Your task to perform on an android device: Search for Mexican restaurants on Maps Image 0: 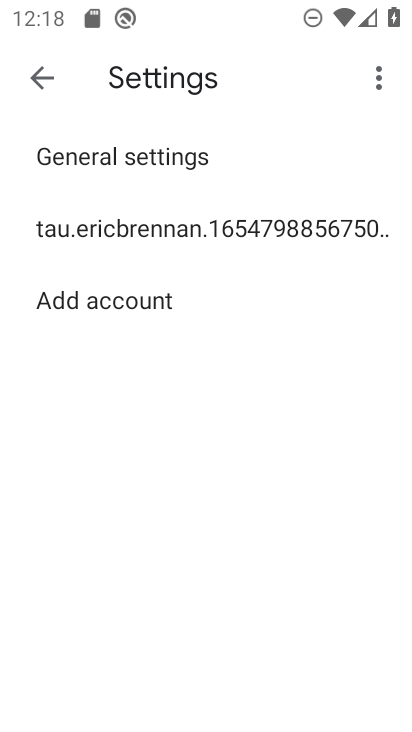
Step 0: click (43, 79)
Your task to perform on an android device: Search for Mexican restaurants on Maps Image 1: 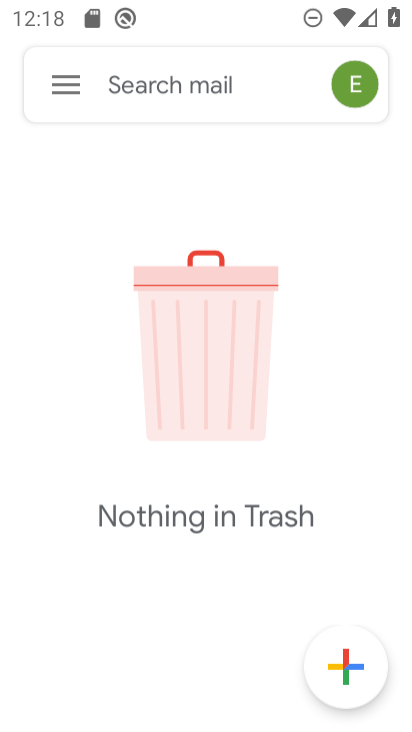
Step 1: press back button
Your task to perform on an android device: Search for Mexican restaurants on Maps Image 2: 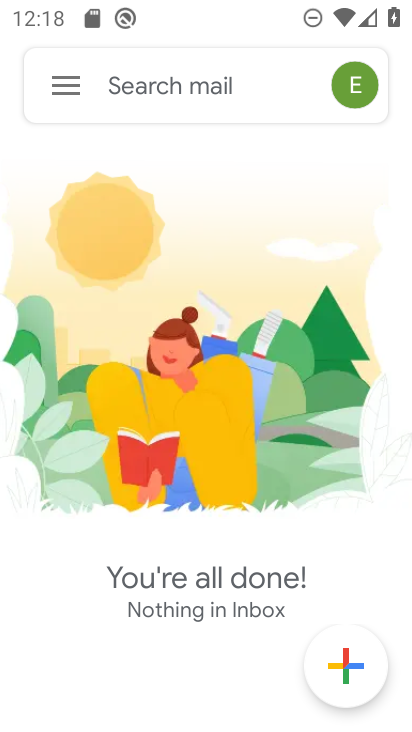
Step 2: press back button
Your task to perform on an android device: Search for Mexican restaurants on Maps Image 3: 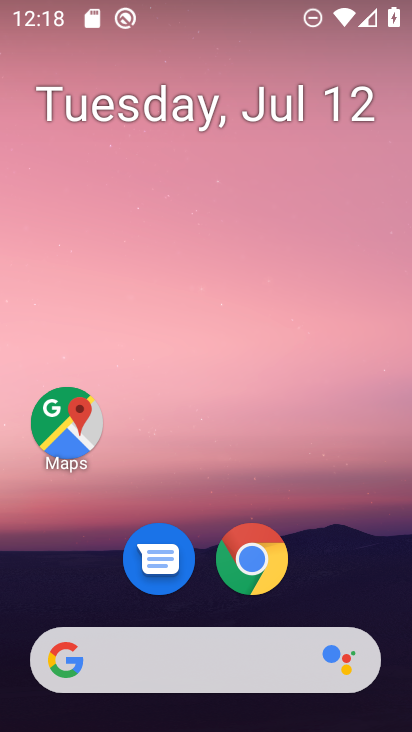
Step 3: click (56, 438)
Your task to perform on an android device: Search for Mexican restaurants on Maps Image 4: 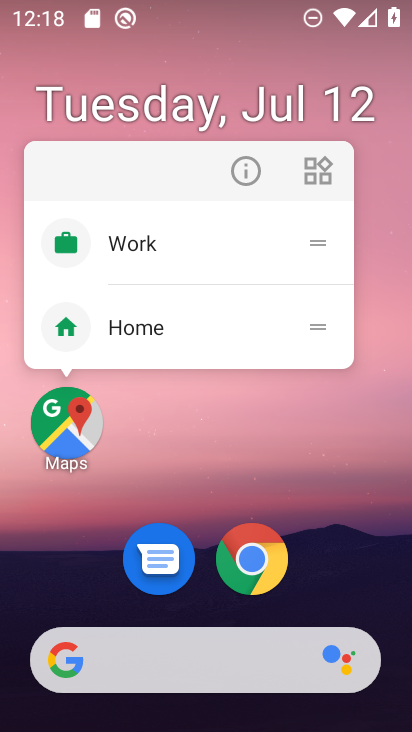
Step 4: click (52, 420)
Your task to perform on an android device: Search for Mexican restaurants on Maps Image 5: 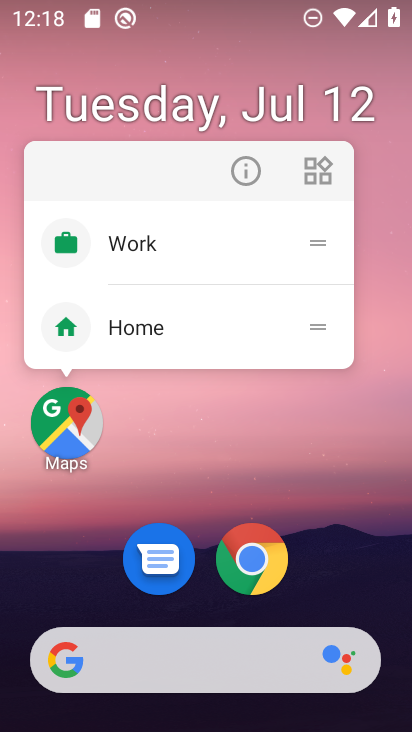
Step 5: click (73, 430)
Your task to perform on an android device: Search for Mexican restaurants on Maps Image 6: 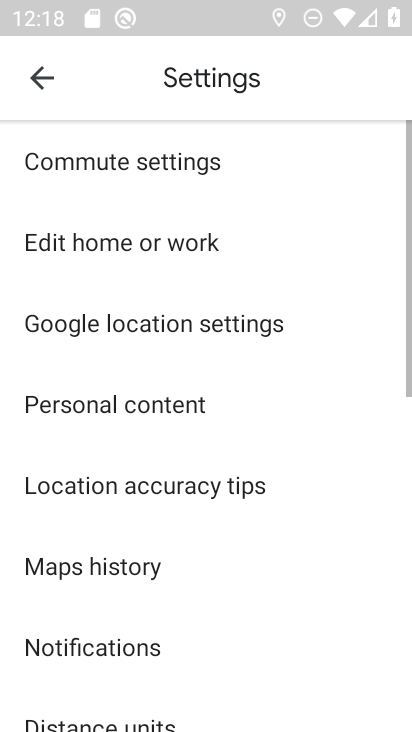
Step 6: click (36, 69)
Your task to perform on an android device: Search for Mexican restaurants on Maps Image 7: 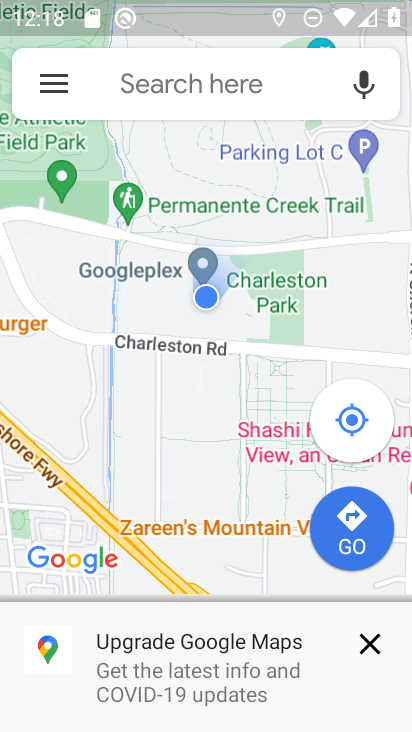
Step 7: click (231, 89)
Your task to perform on an android device: Search for Mexican restaurants on Maps Image 8: 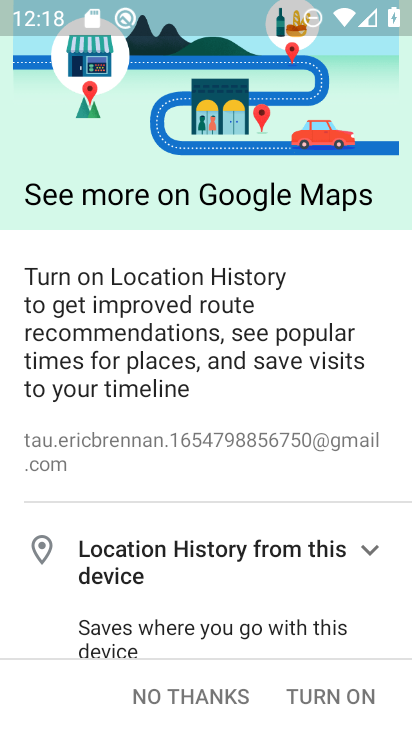
Step 8: click (175, 701)
Your task to perform on an android device: Search for Mexican restaurants on Maps Image 9: 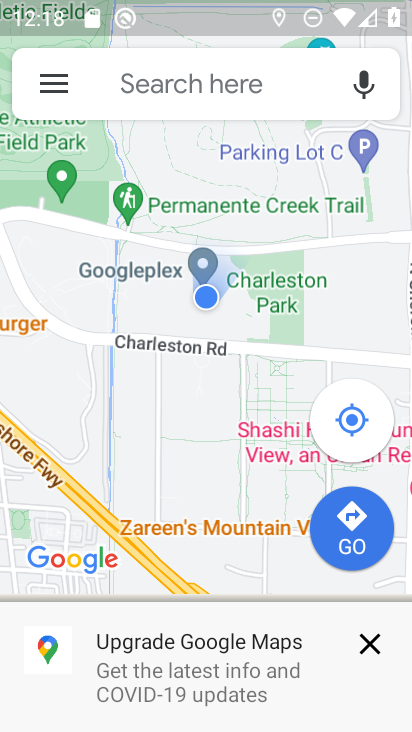
Step 9: click (184, 82)
Your task to perform on an android device: Search for Mexican restaurants on Maps Image 10: 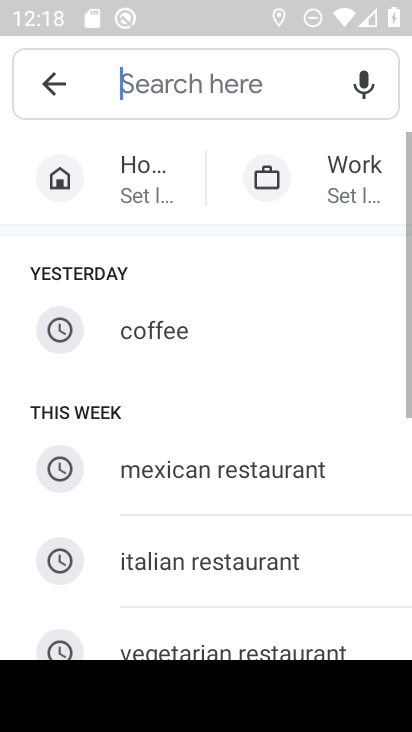
Step 10: click (198, 473)
Your task to perform on an android device: Search for Mexican restaurants on Maps Image 11: 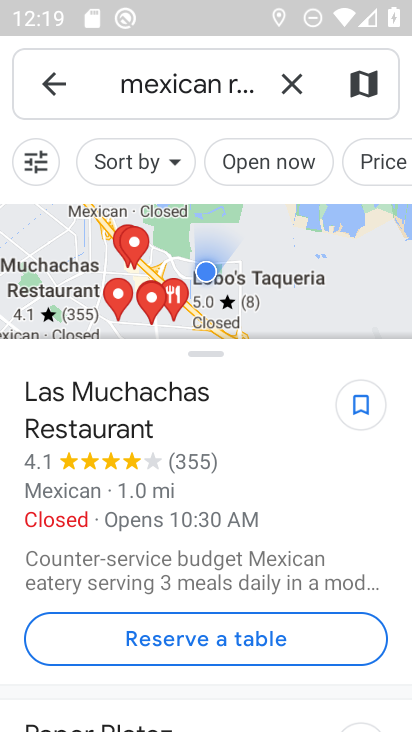
Step 11: task complete